Your task to perform on an android device: open the mobile data screen to see how much data has been used Image 0: 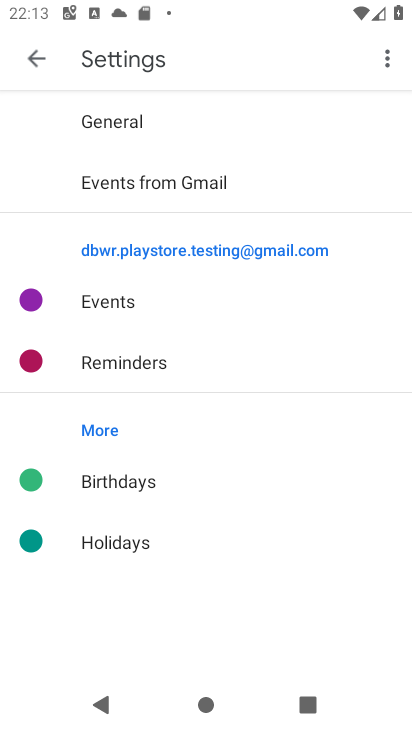
Step 0: press home button
Your task to perform on an android device: open the mobile data screen to see how much data has been used Image 1: 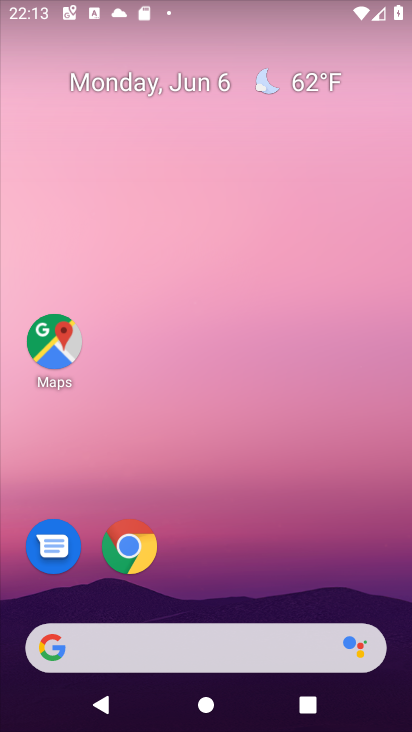
Step 1: drag from (388, 631) to (305, 119)
Your task to perform on an android device: open the mobile data screen to see how much data has been used Image 2: 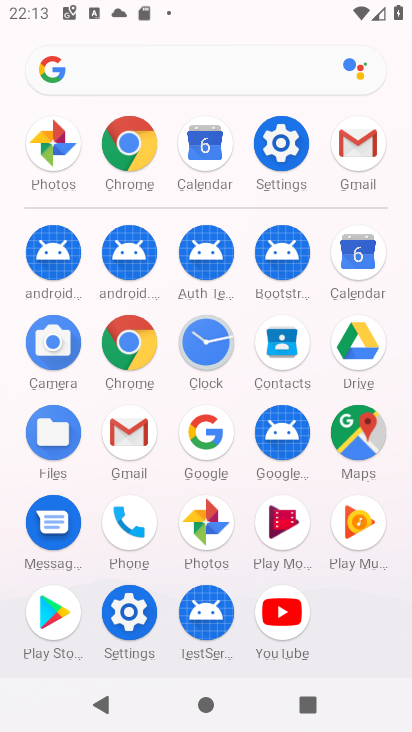
Step 2: click (130, 610)
Your task to perform on an android device: open the mobile data screen to see how much data has been used Image 3: 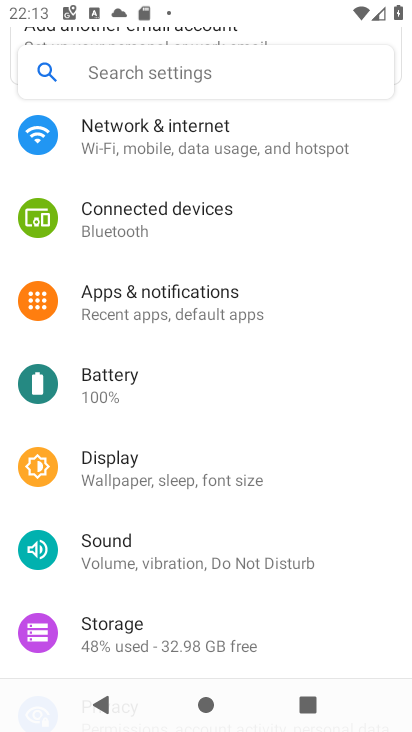
Step 3: click (149, 127)
Your task to perform on an android device: open the mobile data screen to see how much data has been used Image 4: 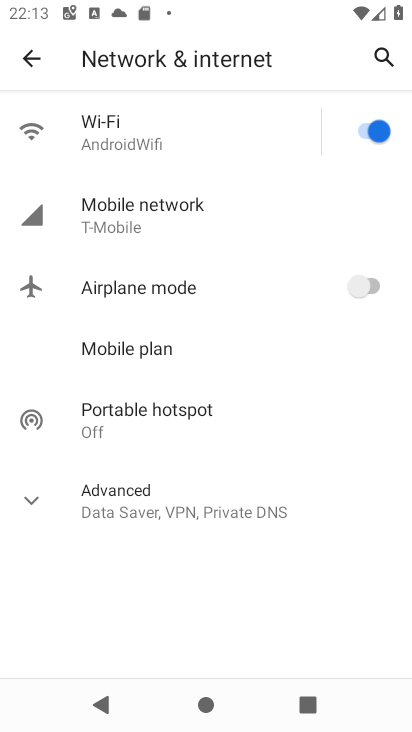
Step 4: click (151, 216)
Your task to perform on an android device: open the mobile data screen to see how much data has been used Image 5: 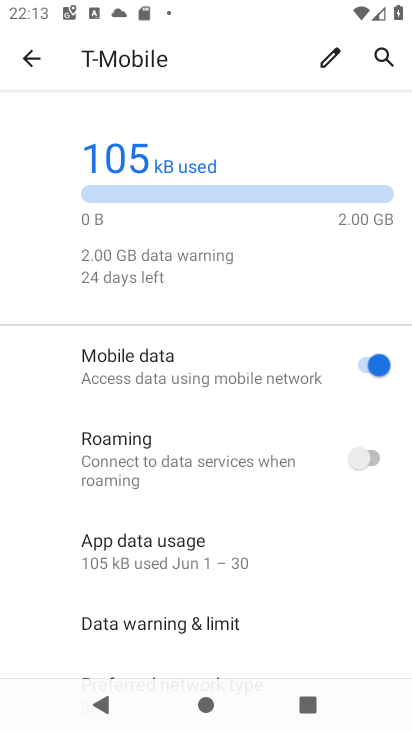
Step 5: task complete